Your task to perform on an android device: see tabs open on other devices in the chrome app Image 0: 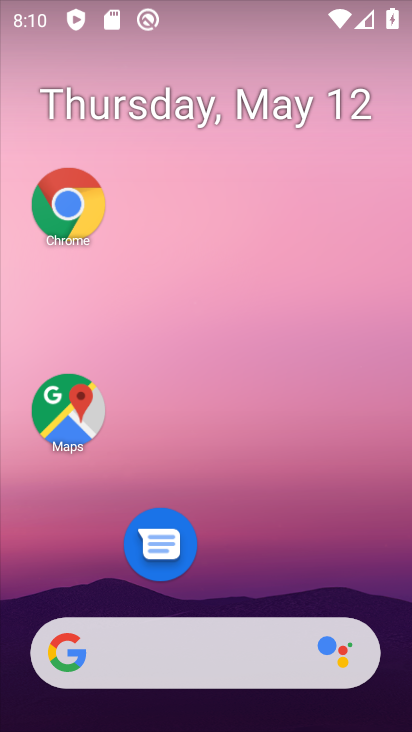
Step 0: click (74, 234)
Your task to perform on an android device: see tabs open on other devices in the chrome app Image 1: 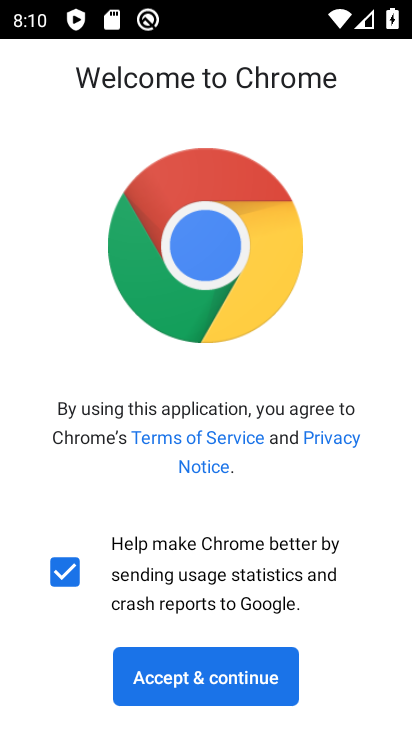
Step 1: click (257, 670)
Your task to perform on an android device: see tabs open on other devices in the chrome app Image 2: 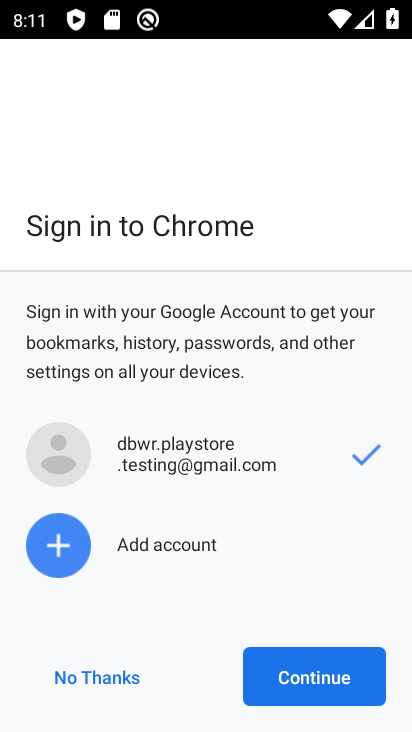
Step 2: click (333, 665)
Your task to perform on an android device: see tabs open on other devices in the chrome app Image 3: 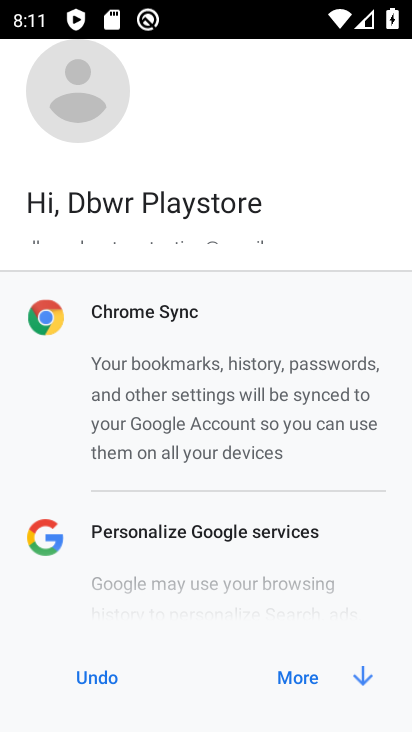
Step 3: click (349, 669)
Your task to perform on an android device: see tabs open on other devices in the chrome app Image 4: 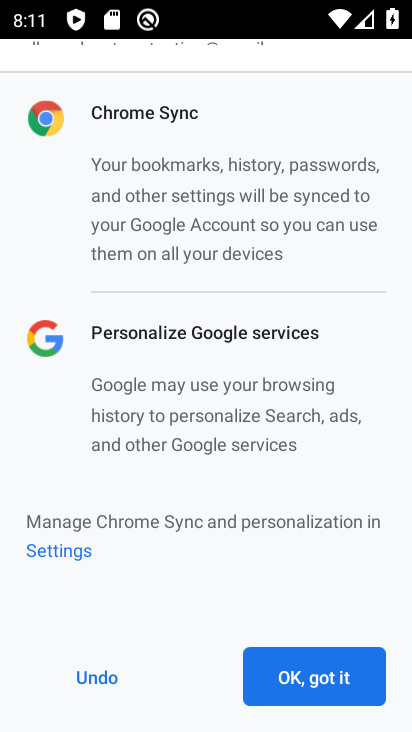
Step 4: click (299, 675)
Your task to perform on an android device: see tabs open on other devices in the chrome app Image 5: 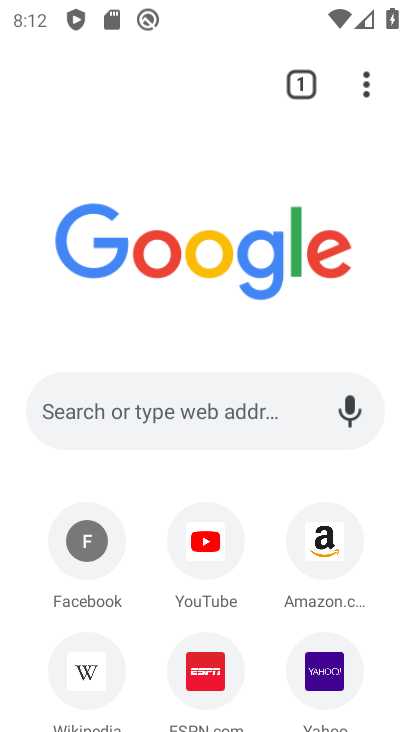
Step 5: click (309, 82)
Your task to perform on an android device: see tabs open on other devices in the chrome app Image 6: 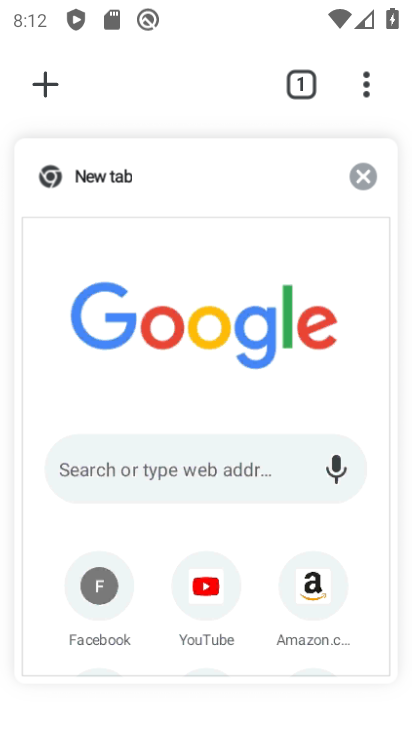
Step 6: task complete